Your task to perform on an android device: toggle notifications settings in the gmail app Image 0: 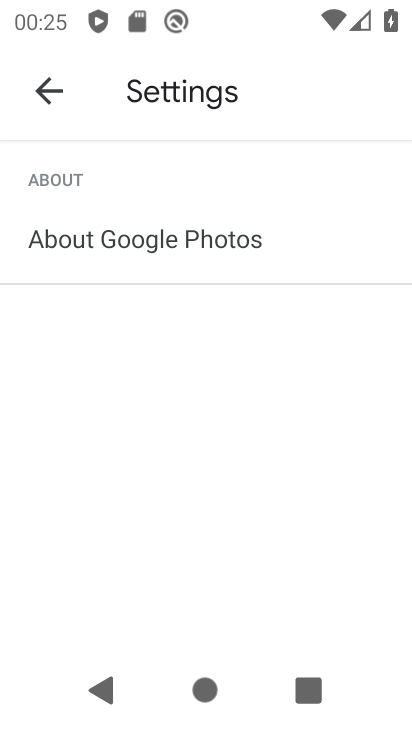
Step 0: press home button
Your task to perform on an android device: toggle notifications settings in the gmail app Image 1: 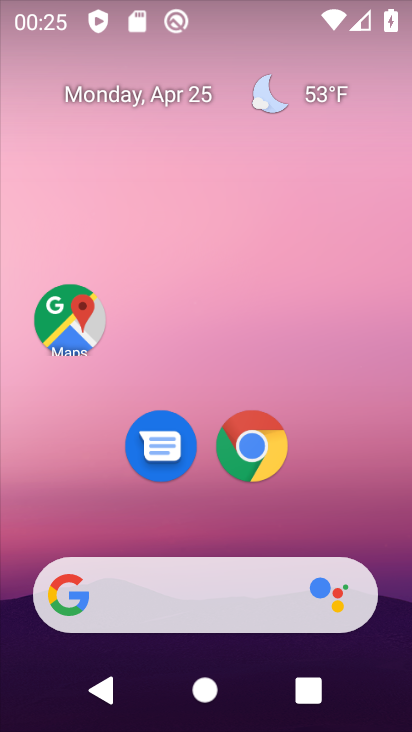
Step 1: drag from (215, 469) to (275, 41)
Your task to perform on an android device: toggle notifications settings in the gmail app Image 2: 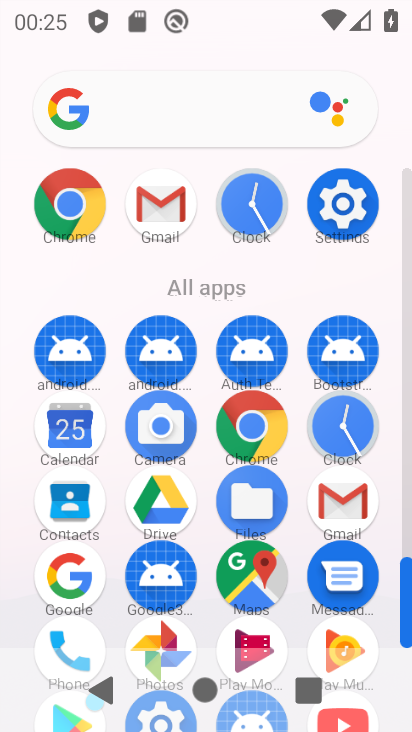
Step 2: click (336, 494)
Your task to perform on an android device: toggle notifications settings in the gmail app Image 3: 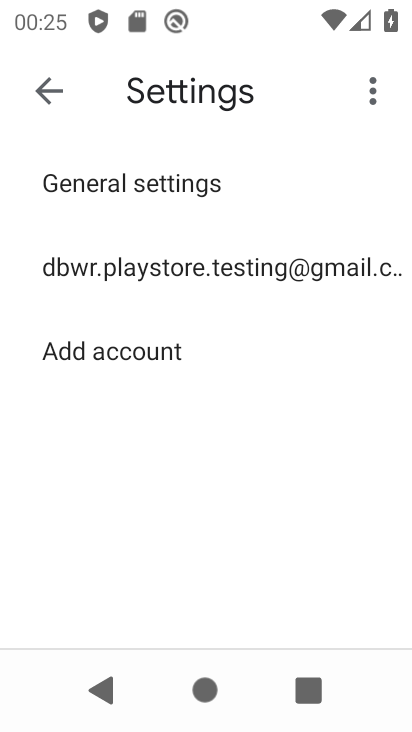
Step 3: click (149, 265)
Your task to perform on an android device: toggle notifications settings in the gmail app Image 4: 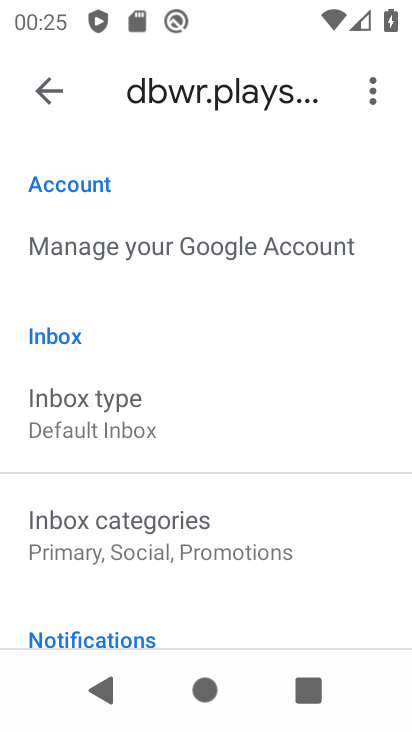
Step 4: click (43, 84)
Your task to perform on an android device: toggle notifications settings in the gmail app Image 5: 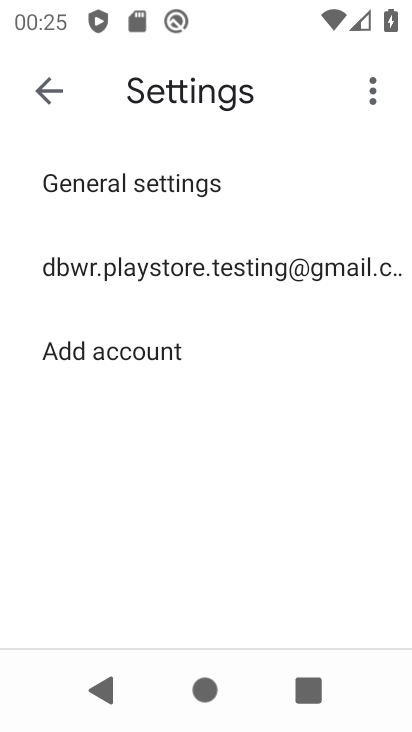
Step 5: click (158, 186)
Your task to perform on an android device: toggle notifications settings in the gmail app Image 6: 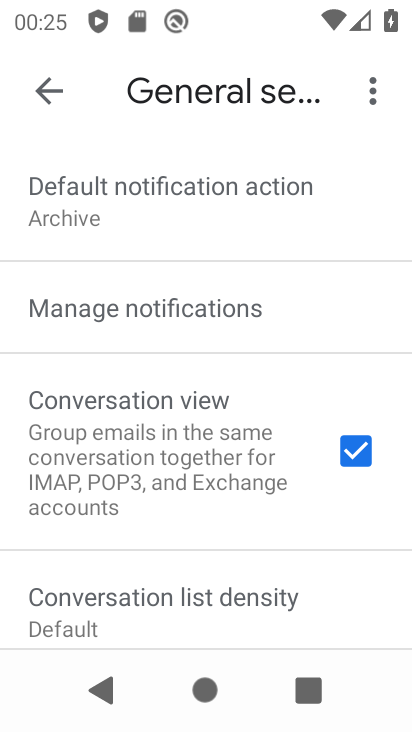
Step 6: click (169, 306)
Your task to perform on an android device: toggle notifications settings in the gmail app Image 7: 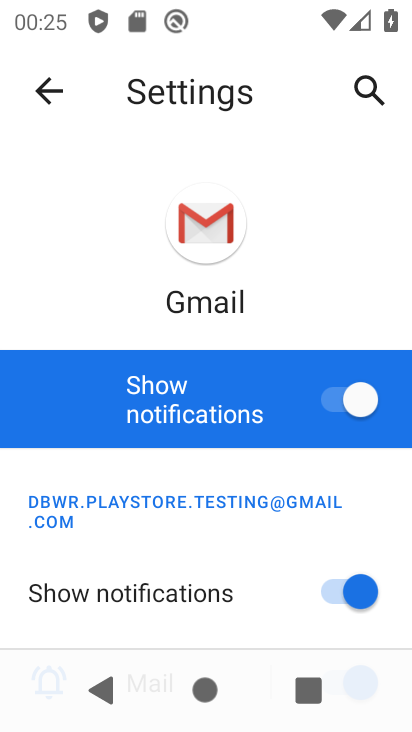
Step 7: click (327, 395)
Your task to perform on an android device: toggle notifications settings in the gmail app Image 8: 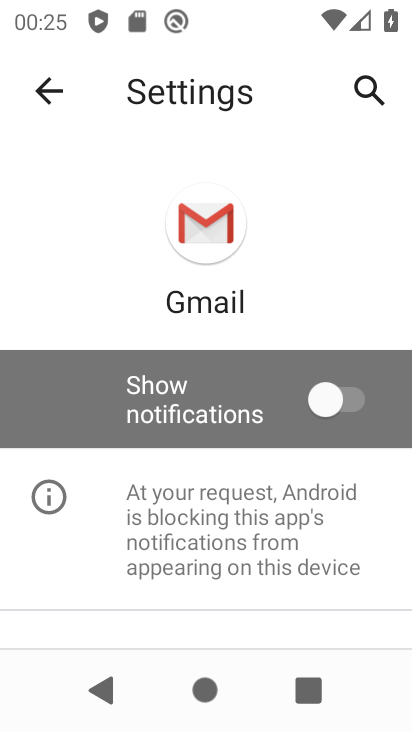
Step 8: task complete